Your task to perform on an android device: Play the last video I watched on Youtube Image 0: 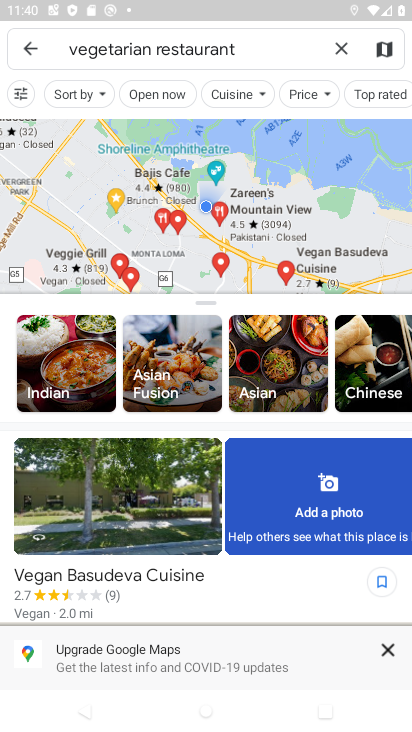
Step 0: press back button
Your task to perform on an android device: Play the last video I watched on Youtube Image 1: 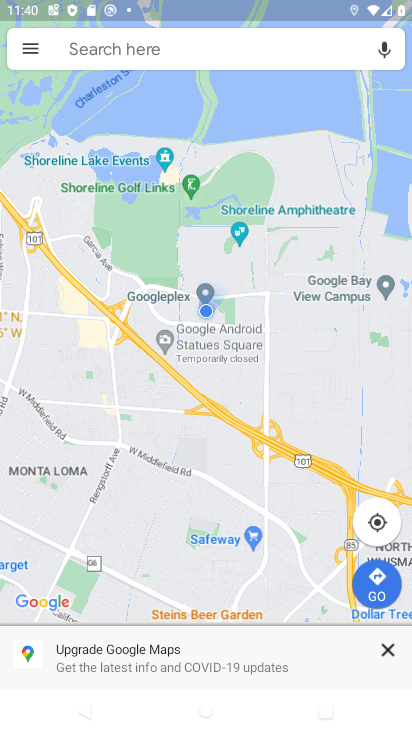
Step 1: press back button
Your task to perform on an android device: Play the last video I watched on Youtube Image 2: 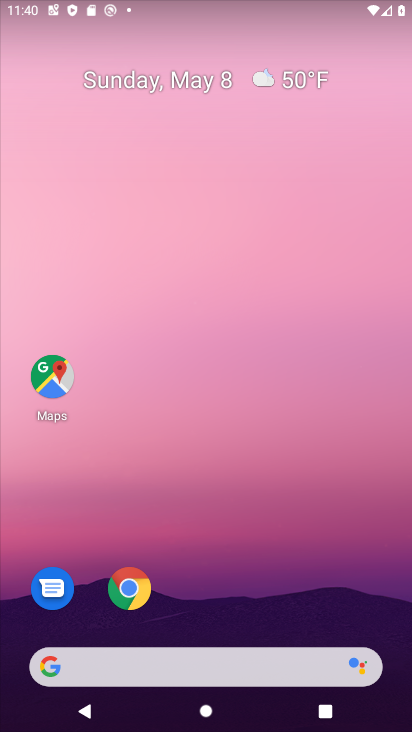
Step 2: drag from (136, 657) to (279, 74)
Your task to perform on an android device: Play the last video I watched on Youtube Image 3: 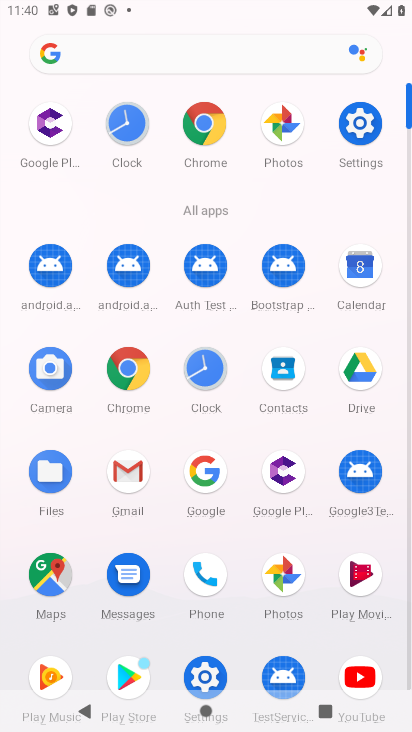
Step 3: click (370, 671)
Your task to perform on an android device: Play the last video I watched on Youtube Image 4: 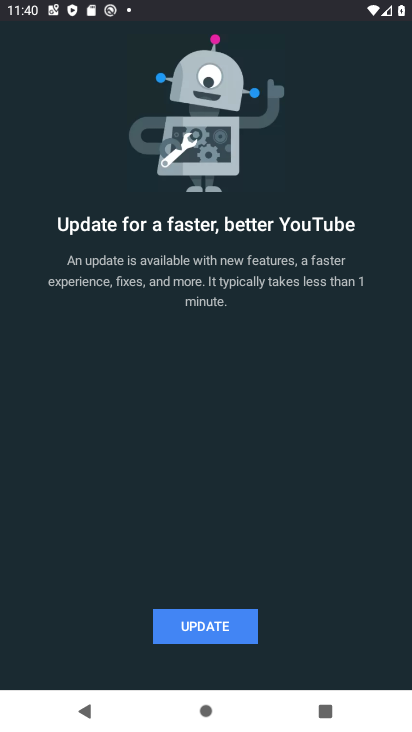
Step 4: click (247, 630)
Your task to perform on an android device: Play the last video I watched on Youtube Image 5: 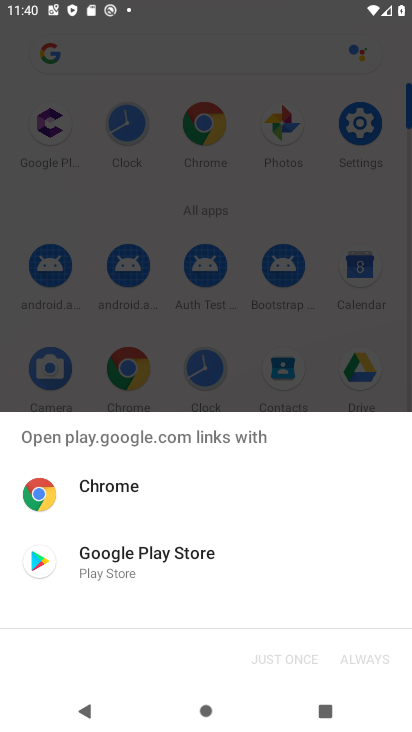
Step 5: click (122, 557)
Your task to perform on an android device: Play the last video I watched on Youtube Image 6: 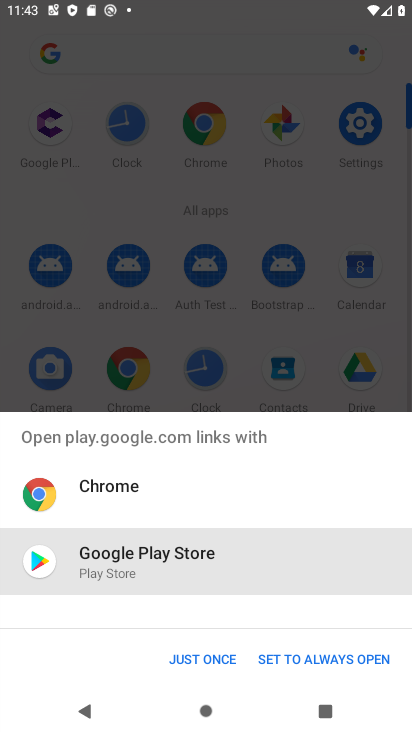
Step 6: click (214, 664)
Your task to perform on an android device: Play the last video I watched on Youtube Image 7: 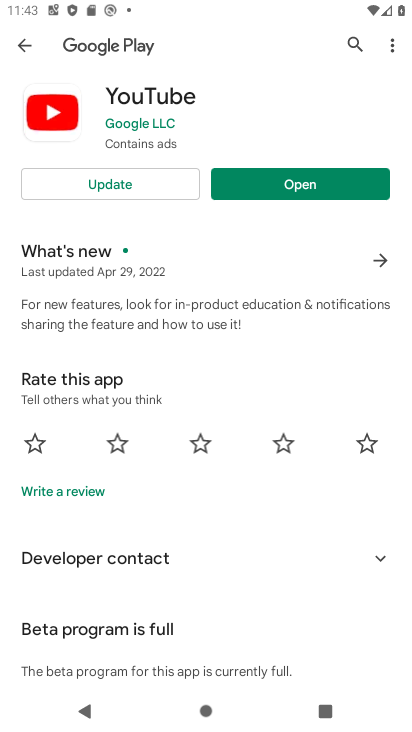
Step 7: click (294, 186)
Your task to perform on an android device: Play the last video I watched on Youtube Image 8: 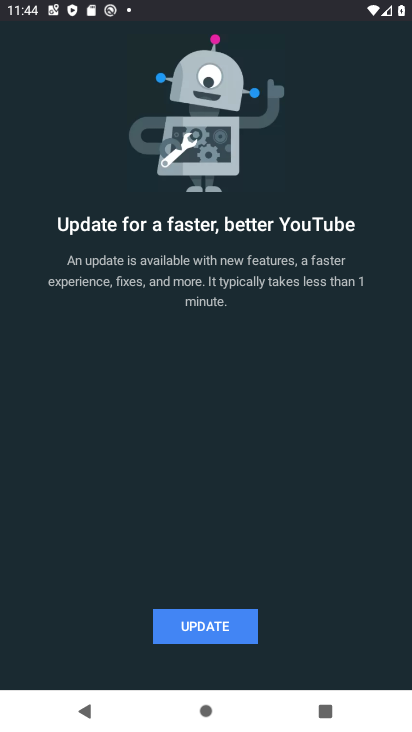
Step 8: click (217, 626)
Your task to perform on an android device: Play the last video I watched on Youtube Image 9: 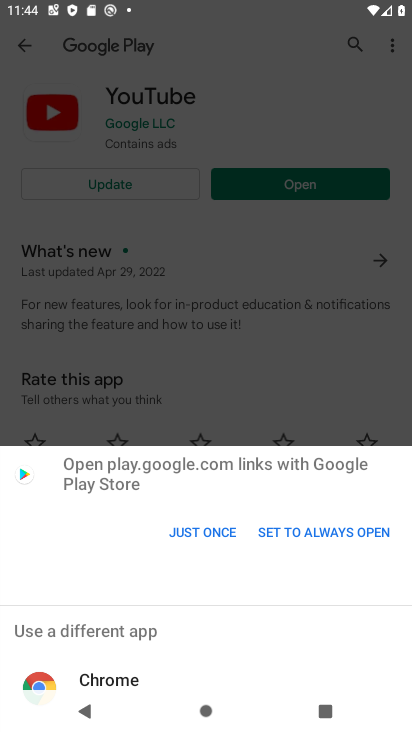
Step 9: click (202, 533)
Your task to perform on an android device: Play the last video I watched on Youtube Image 10: 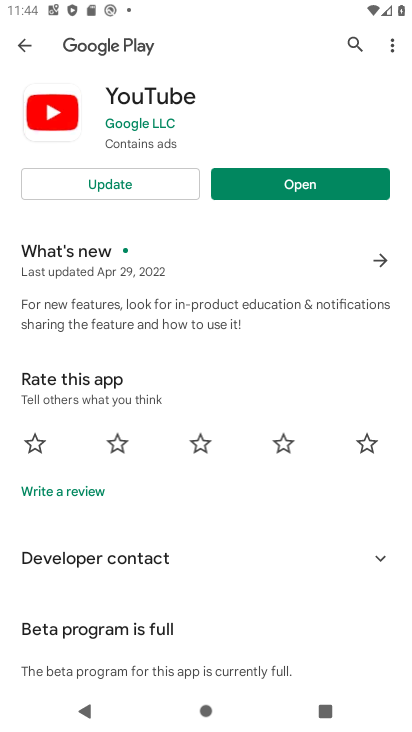
Step 10: click (272, 186)
Your task to perform on an android device: Play the last video I watched on Youtube Image 11: 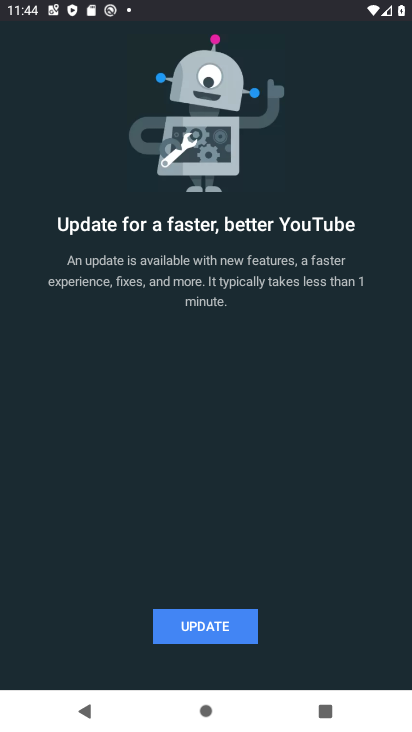
Step 11: click (211, 621)
Your task to perform on an android device: Play the last video I watched on Youtube Image 12: 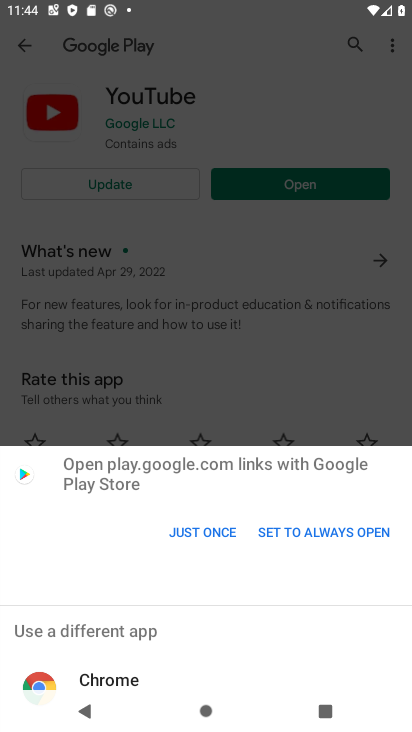
Step 12: click (204, 537)
Your task to perform on an android device: Play the last video I watched on Youtube Image 13: 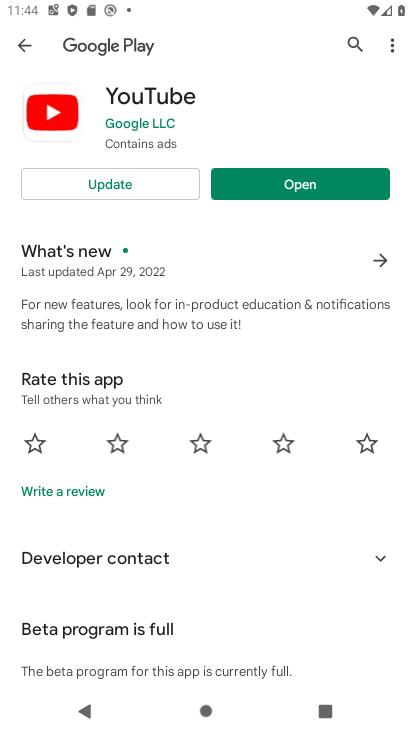
Step 13: click (116, 195)
Your task to perform on an android device: Play the last video I watched on Youtube Image 14: 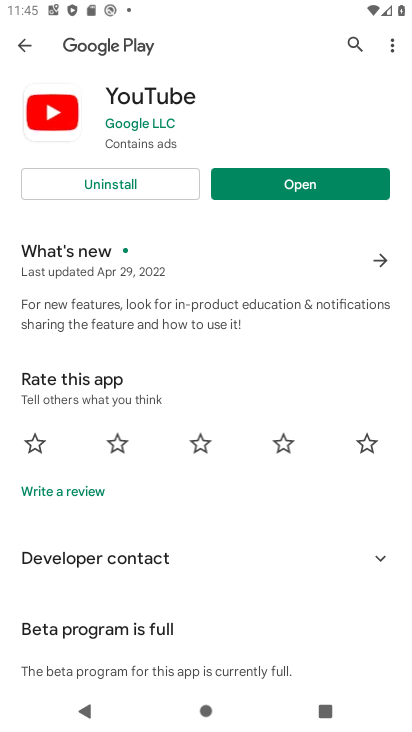
Step 14: click (289, 187)
Your task to perform on an android device: Play the last video I watched on Youtube Image 15: 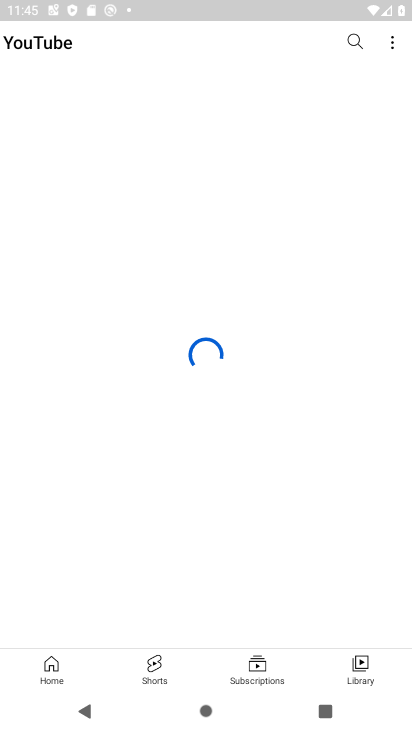
Step 15: click (309, 664)
Your task to perform on an android device: Play the last video I watched on Youtube Image 16: 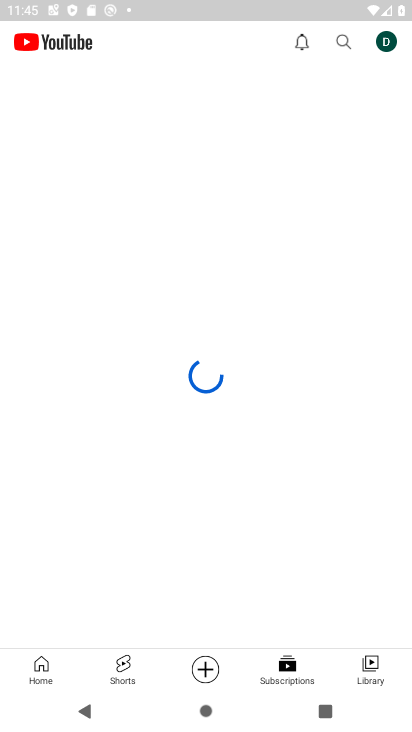
Step 16: click (343, 667)
Your task to perform on an android device: Play the last video I watched on Youtube Image 17: 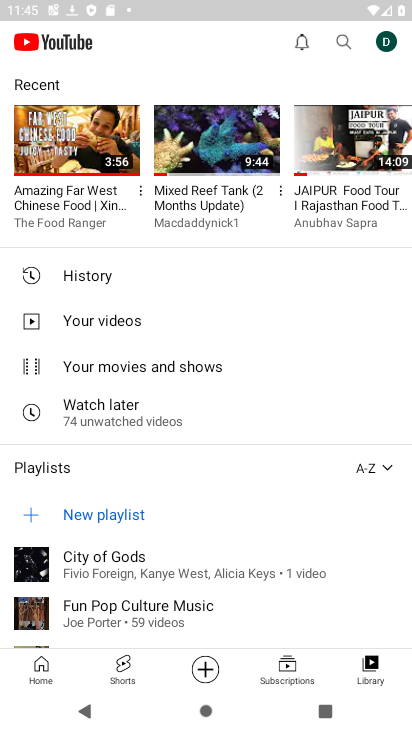
Step 17: click (38, 136)
Your task to perform on an android device: Play the last video I watched on Youtube Image 18: 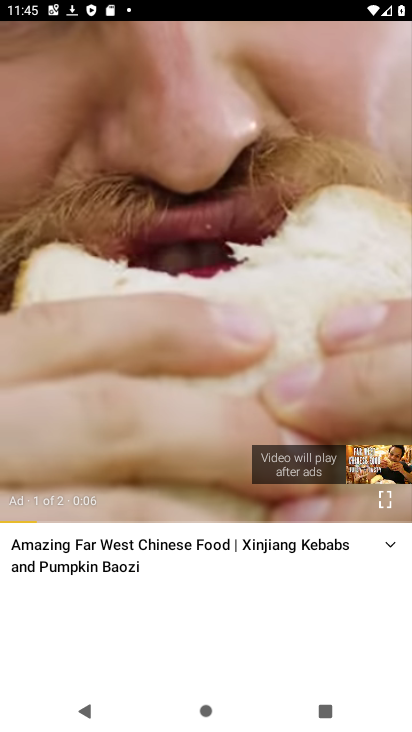
Step 18: task complete